Your task to perform on an android device: Clear the shopping cart on costco. Add "corsair k70" to the cart on costco, then select checkout. Image 0: 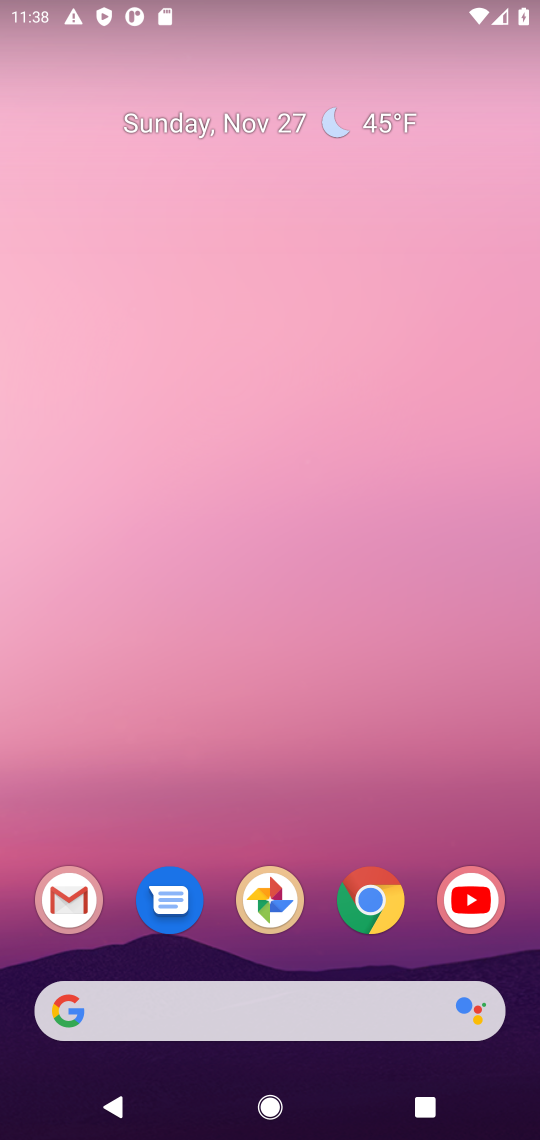
Step 0: click (361, 895)
Your task to perform on an android device: Clear the shopping cart on costco. Add "corsair k70" to the cart on costco, then select checkout. Image 1: 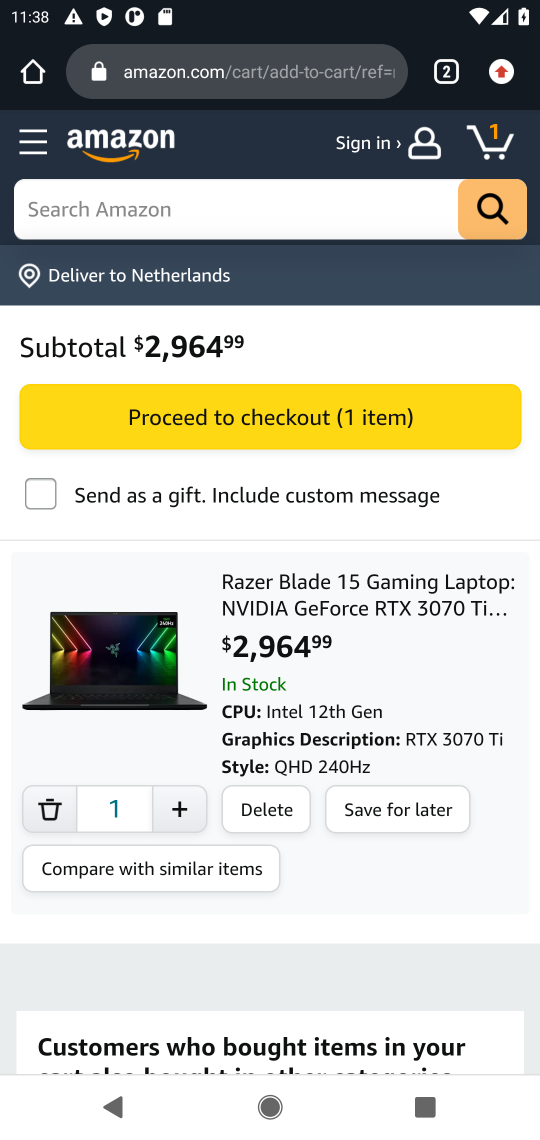
Step 1: click (228, 67)
Your task to perform on an android device: Clear the shopping cart on costco. Add "corsair k70" to the cart on costco, then select checkout. Image 2: 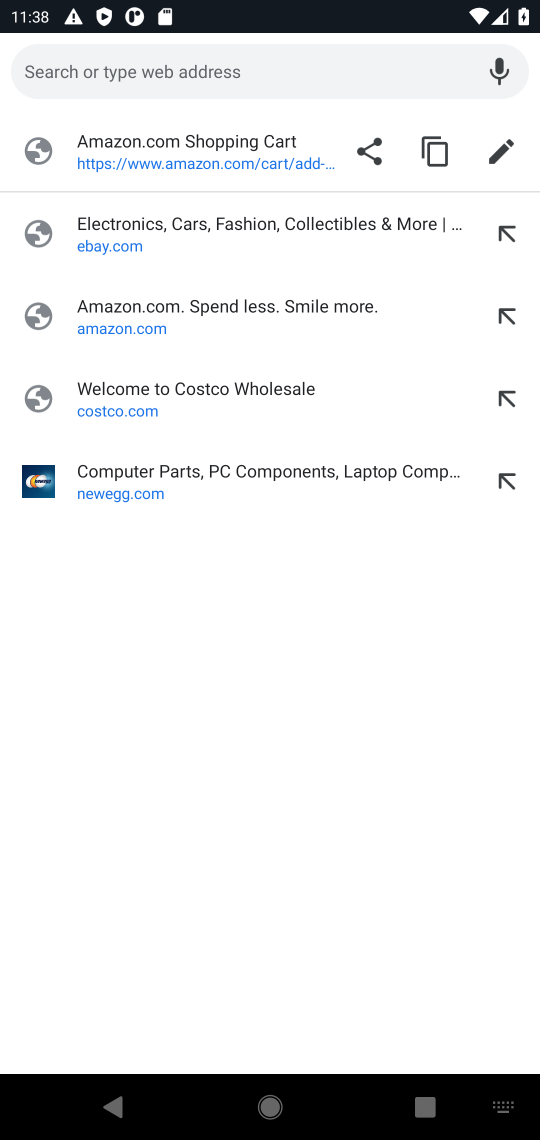
Step 2: click (116, 402)
Your task to perform on an android device: Clear the shopping cart on costco. Add "corsair k70" to the cart on costco, then select checkout. Image 3: 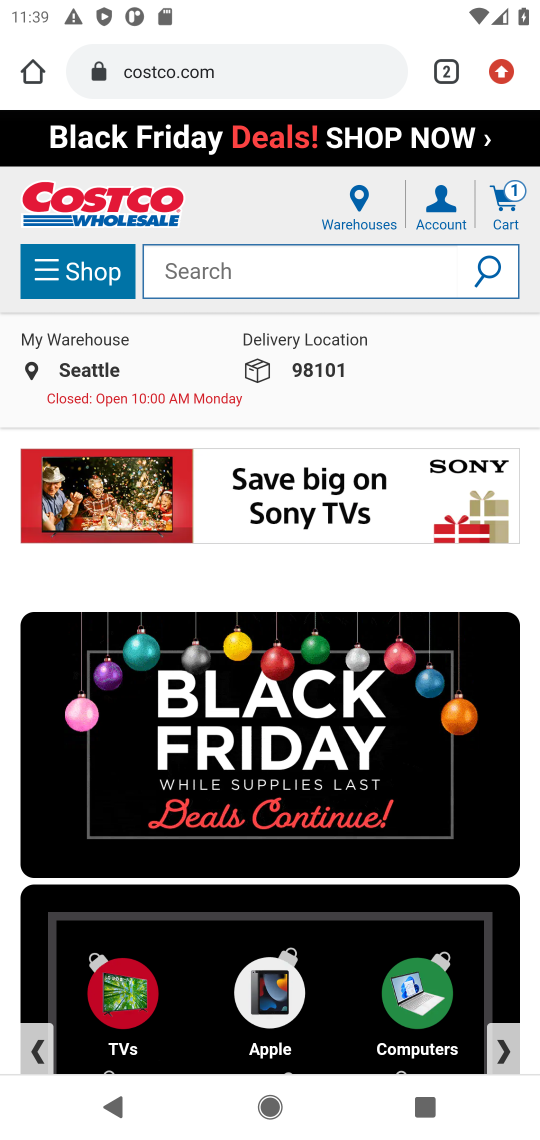
Step 3: click (480, 211)
Your task to perform on an android device: Clear the shopping cart on costco. Add "corsair k70" to the cart on costco, then select checkout. Image 4: 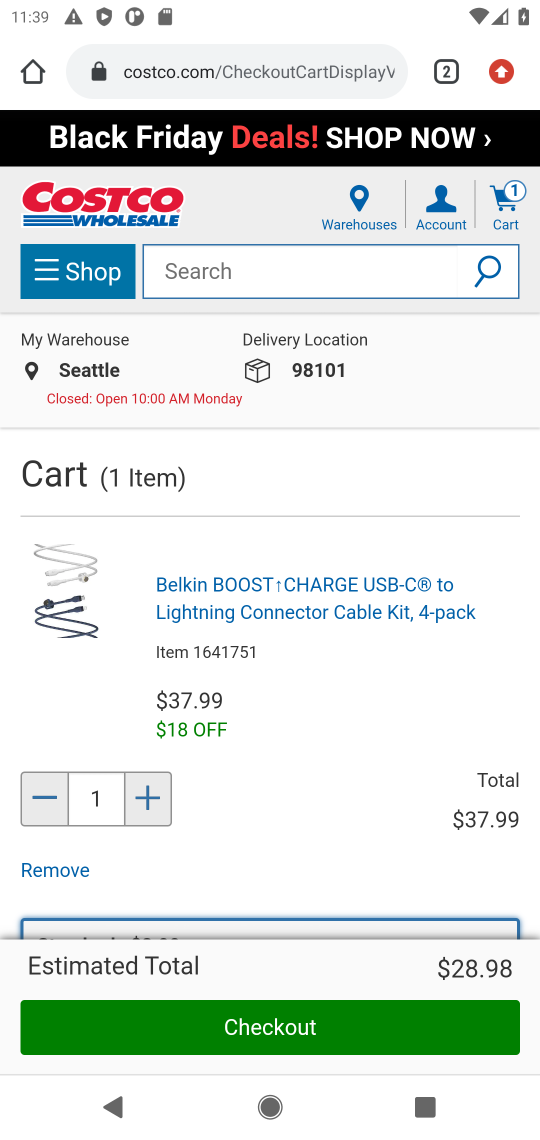
Step 4: drag from (275, 672) to (313, 324)
Your task to perform on an android device: Clear the shopping cart on costco. Add "corsair k70" to the cart on costco, then select checkout. Image 5: 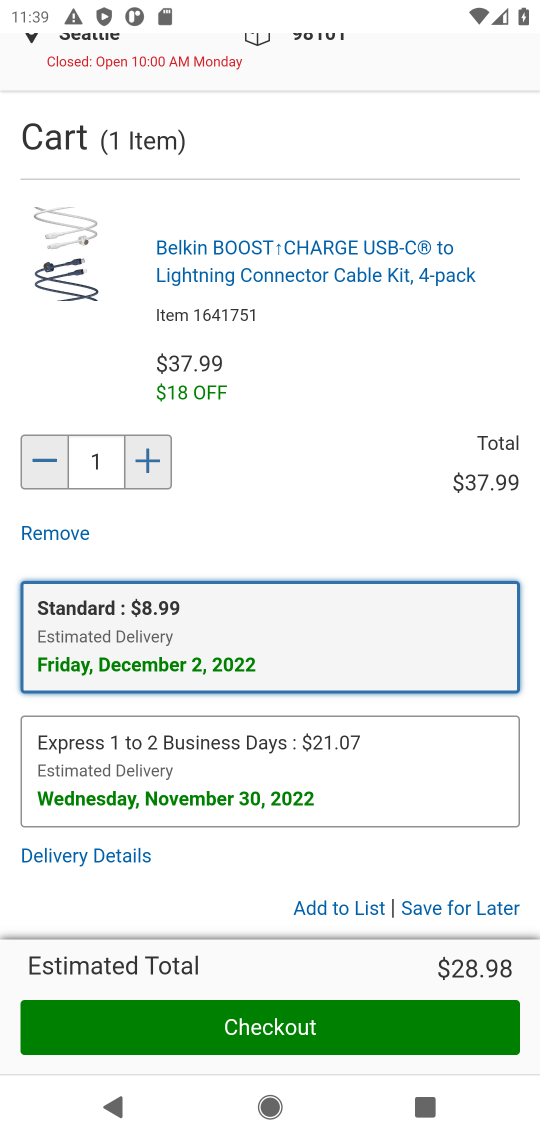
Step 5: drag from (241, 813) to (250, 517)
Your task to perform on an android device: Clear the shopping cart on costco. Add "corsair k70" to the cart on costco, then select checkout. Image 6: 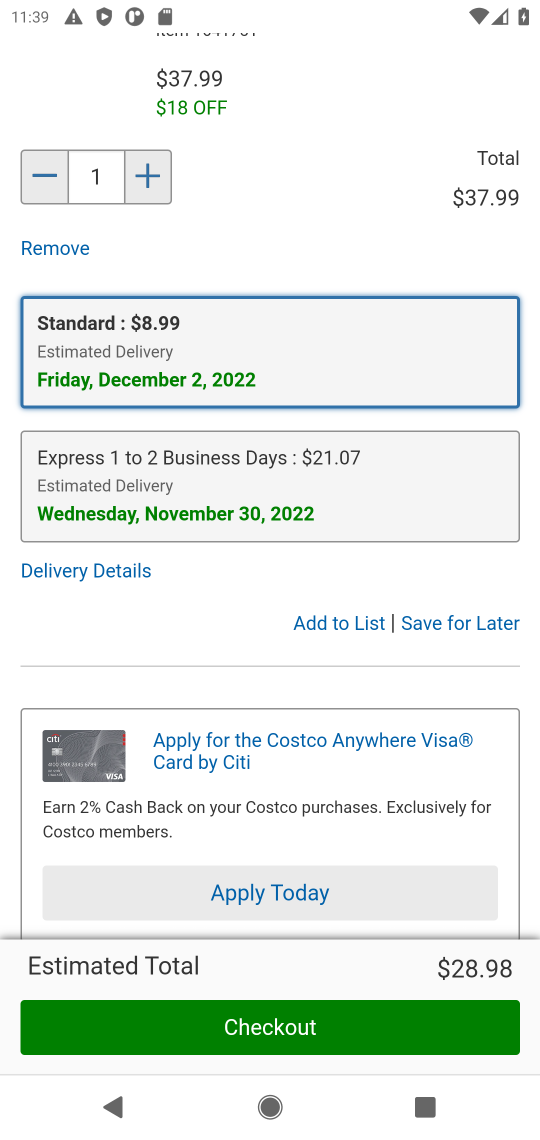
Step 6: click (463, 622)
Your task to perform on an android device: Clear the shopping cart on costco. Add "corsair k70" to the cart on costco, then select checkout. Image 7: 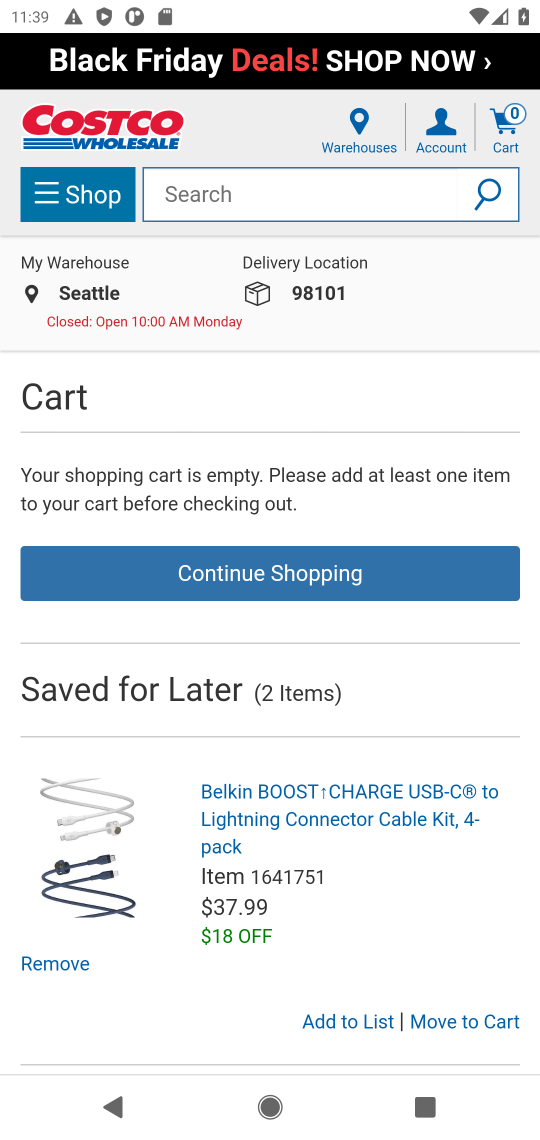
Step 7: click (205, 189)
Your task to perform on an android device: Clear the shopping cart on costco. Add "corsair k70" to the cart on costco, then select checkout. Image 8: 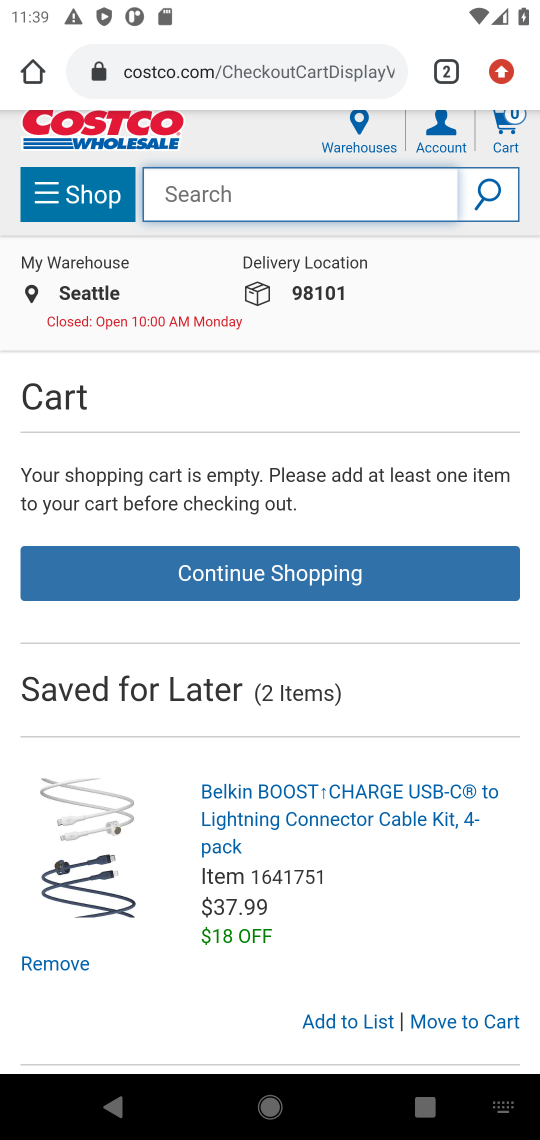
Step 8: type "corsair k70"
Your task to perform on an android device: Clear the shopping cart on costco. Add "corsair k70" to the cart on costco, then select checkout. Image 9: 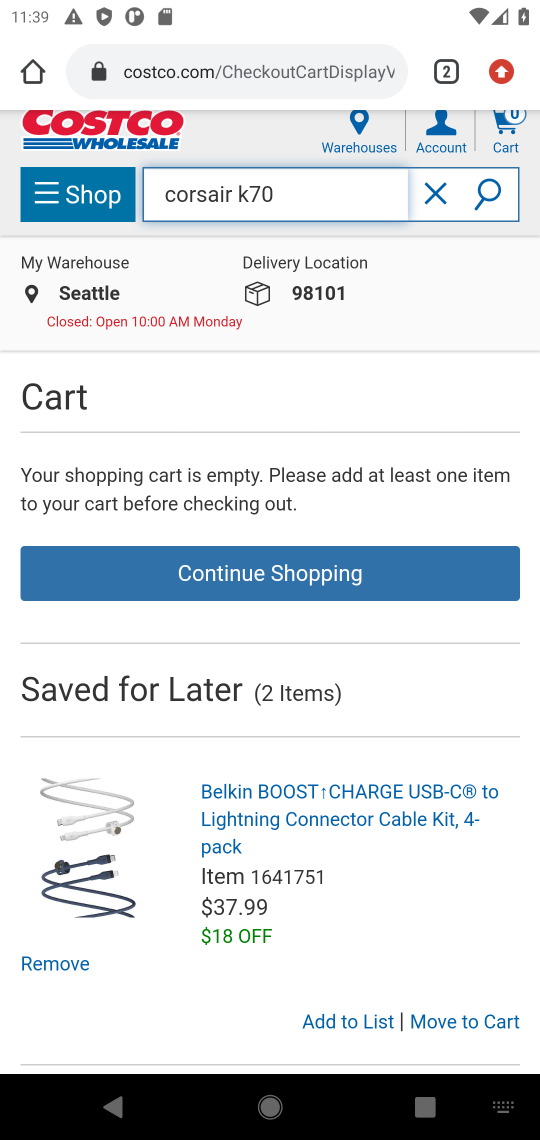
Step 9: click (485, 201)
Your task to perform on an android device: Clear the shopping cart on costco. Add "corsair k70" to the cart on costco, then select checkout. Image 10: 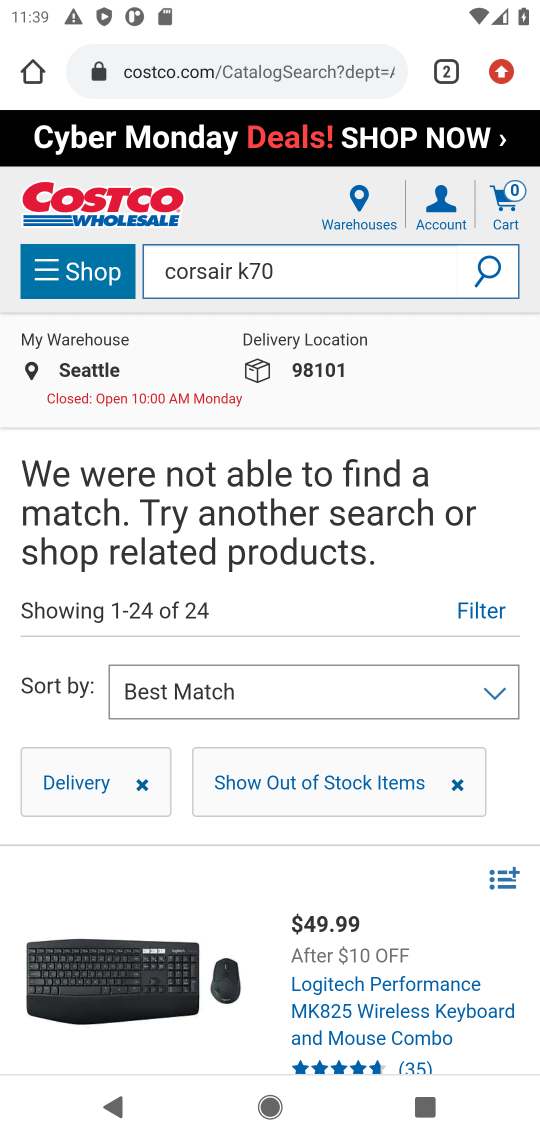
Step 10: task complete